Your task to perform on an android device: turn smart compose on in the gmail app Image 0: 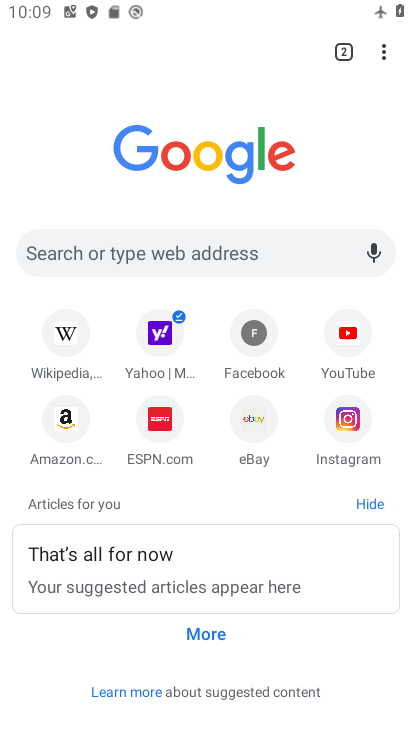
Step 0: press home button
Your task to perform on an android device: turn smart compose on in the gmail app Image 1: 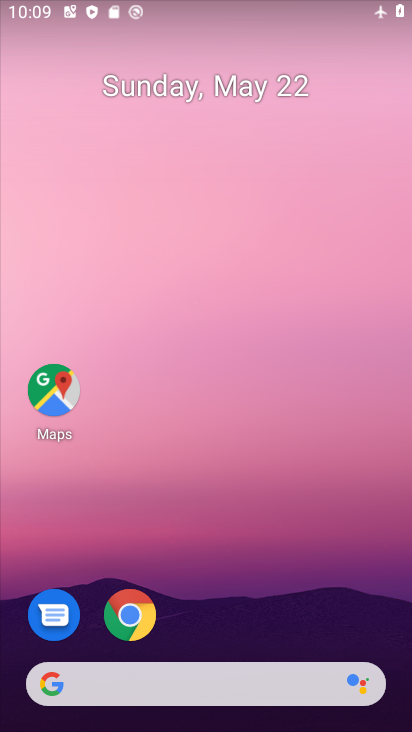
Step 1: drag from (237, 608) to (200, 95)
Your task to perform on an android device: turn smart compose on in the gmail app Image 2: 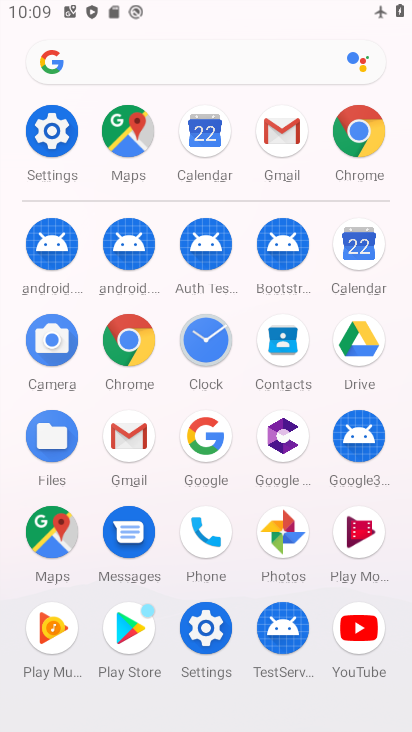
Step 2: click (289, 138)
Your task to perform on an android device: turn smart compose on in the gmail app Image 3: 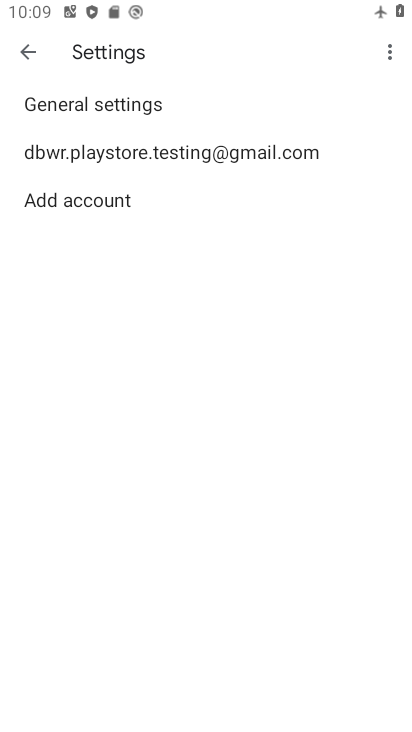
Step 3: click (158, 151)
Your task to perform on an android device: turn smart compose on in the gmail app Image 4: 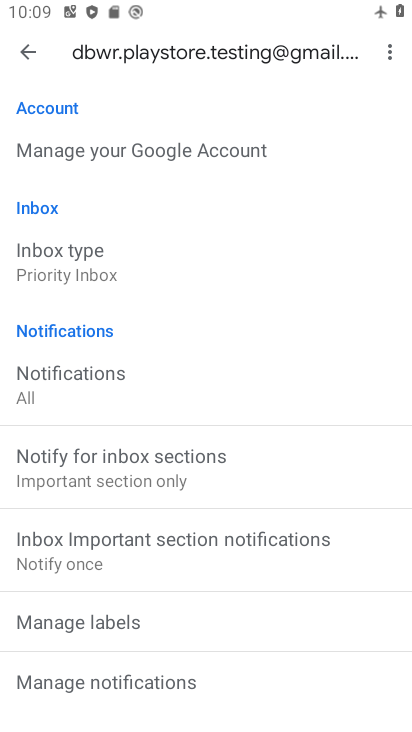
Step 4: drag from (225, 640) to (263, 170)
Your task to perform on an android device: turn smart compose on in the gmail app Image 5: 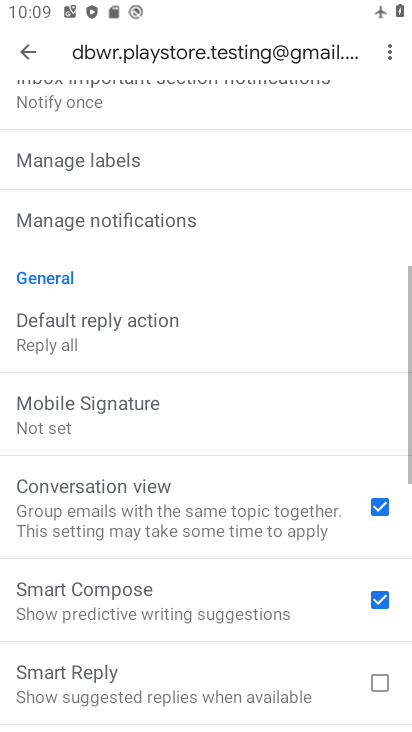
Step 5: drag from (179, 242) to (171, 630)
Your task to perform on an android device: turn smart compose on in the gmail app Image 6: 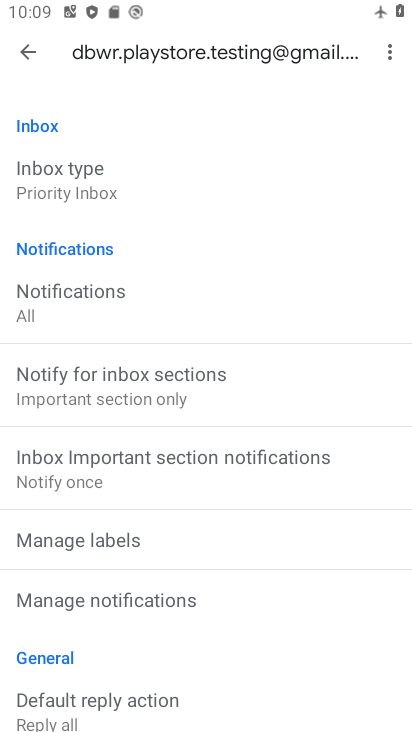
Step 6: drag from (152, 632) to (199, 95)
Your task to perform on an android device: turn smart compose on in the gmail app Image 7: 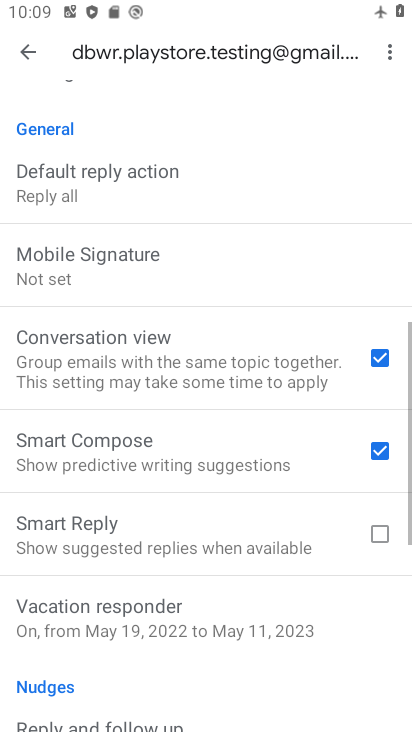
Step 7: drag from (197, 688) to (223, 306)
Your task to perform on an android device: turn smart compose on in the gmail app Image 8: 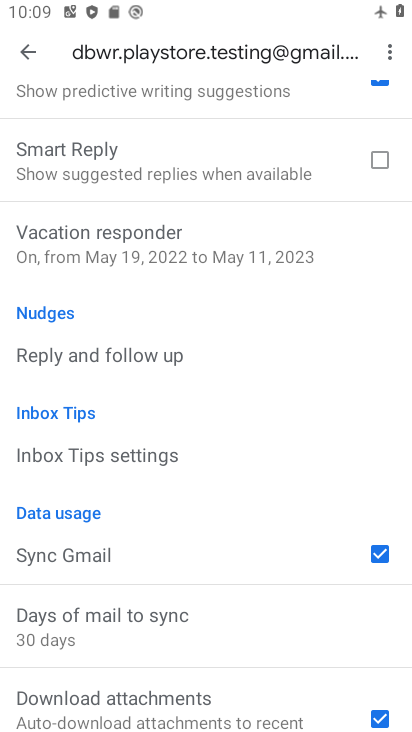
Step 8: click (377, 163)
Your task to perform on an android device: turn smart compose on in the gmail app Image 9: 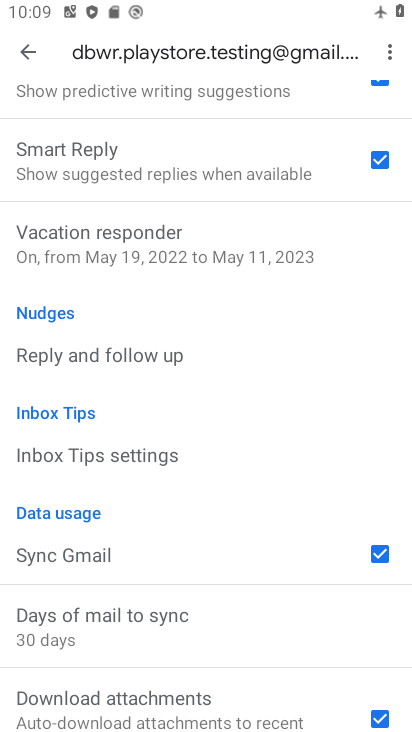
Step 9: task complete